Your task to perform on an android device: snooze an email in the gmail app Image 0: 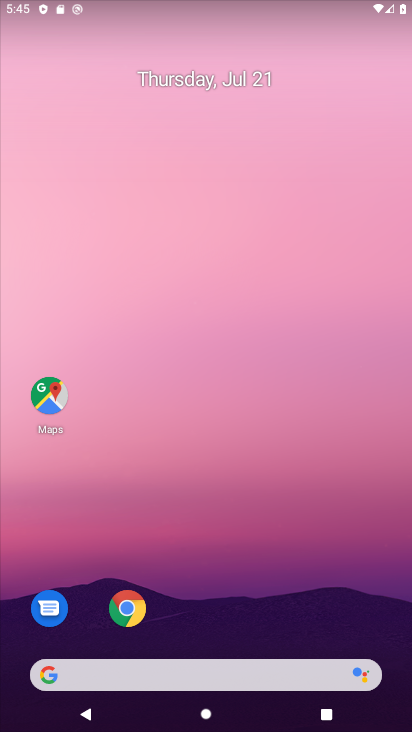
Step 0: drag from (193, 672) to (266, 40)
Your task to perform on an android device: snooze an email in the gmail app Image 1: 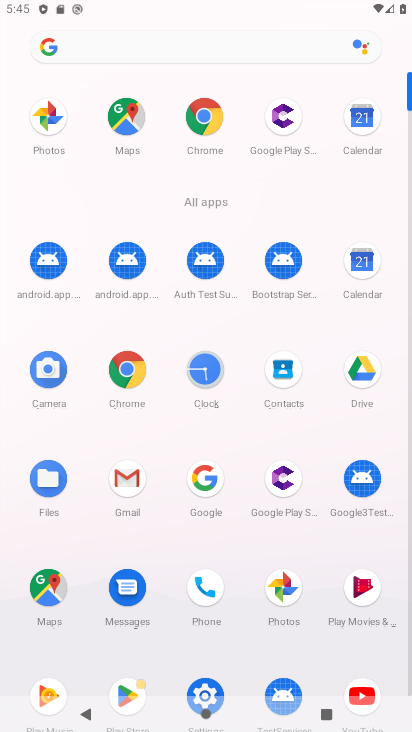
Step 1: click (127, 474)
Your task to perform on an android device: snooze an email in the gmail app Image 2: 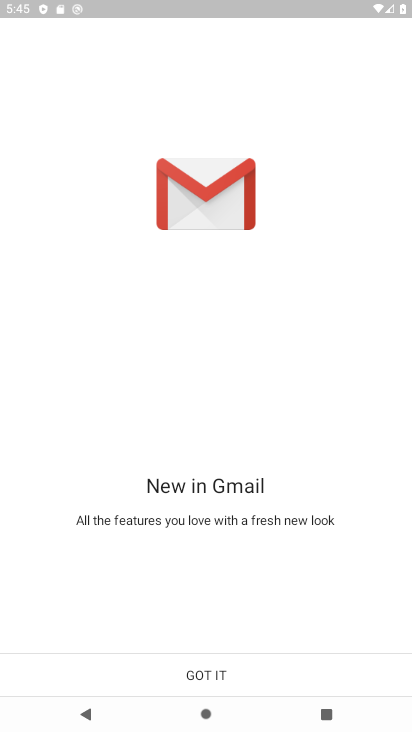
Step 2: click (207, 671)
Your task to perform on an android device: snooze an email in the gmail app Image 3: 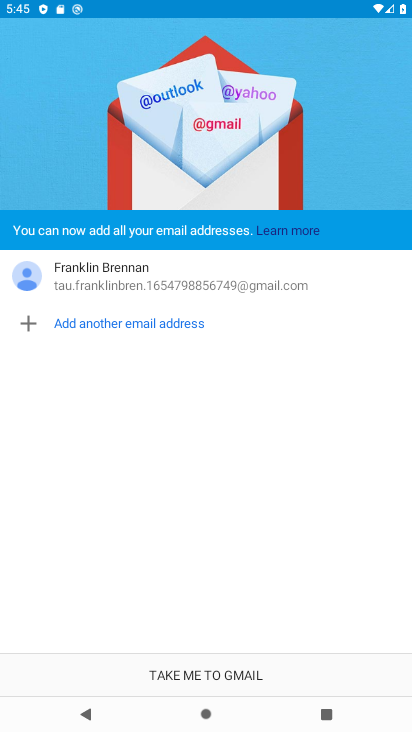
Step 3: click (207, 671)
Your task to perform on an android device: snooze an email in the gmail app Image 4: 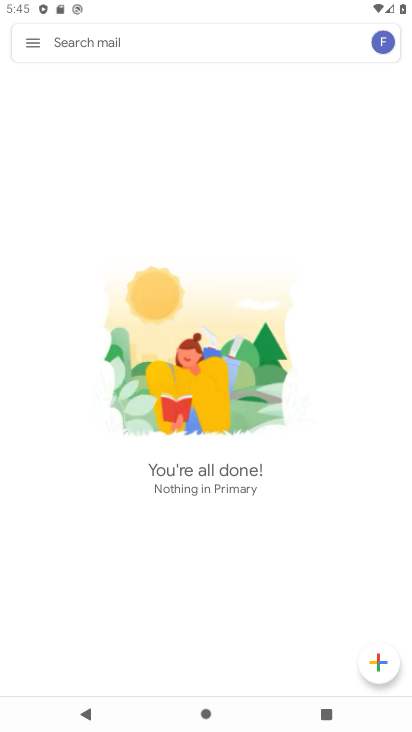
Step 4: click (32, 40)
Your task to perform on an android device: snooze an email in the gmail app Image 5: 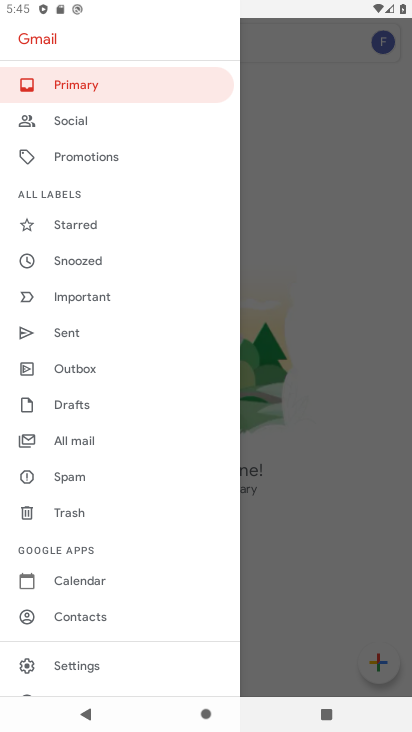
Step 5: click (75, 433)
Your task to perform on an android device: snooze an email in the gmail app Image 6: 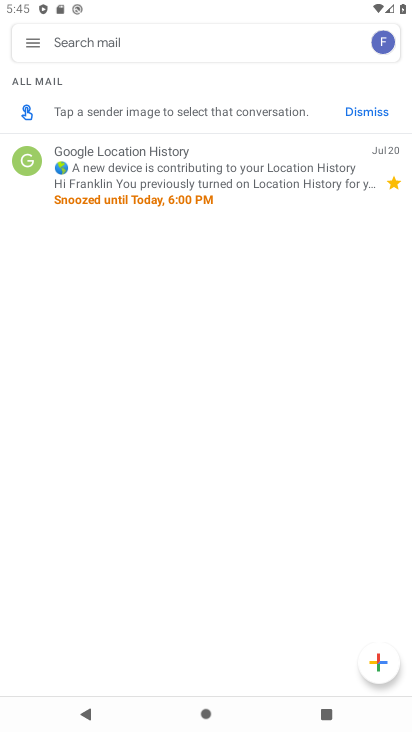
Step 6: click (195, 180)
Your task to perform on an android device: snooze an email in the gmail app Image 7: 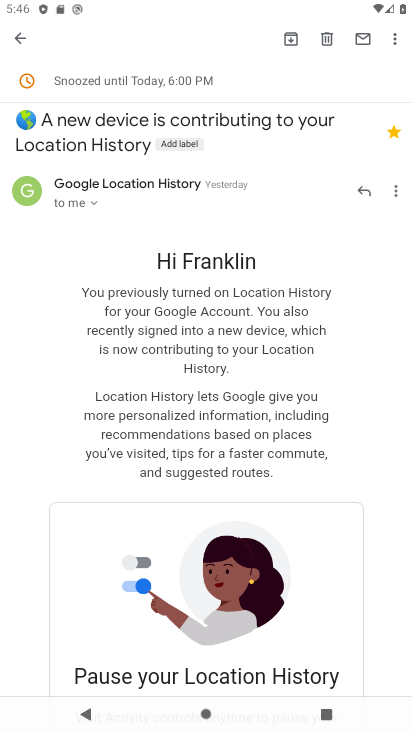
Step 7: task complete